Your task to perform on an android device: Open the stopwatch Image 0: 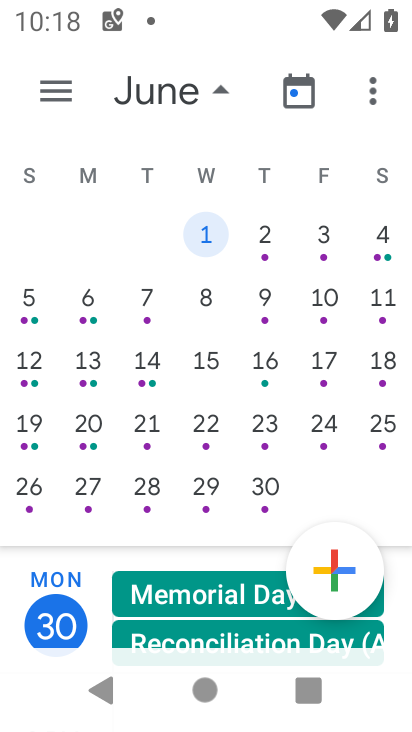
Step 0: press home button
Your task to perform on an android device: Open the stopwatch Image 1: 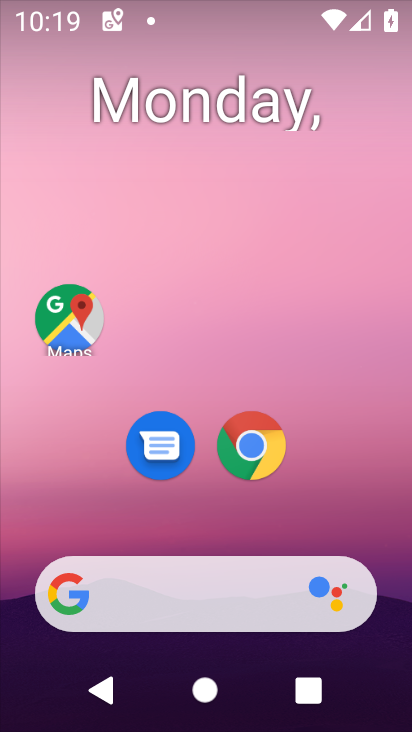
Step 1: drag from (277, 536) to (365, 5)
Your task to perform on an android device: Open the stopwatch Image 2: 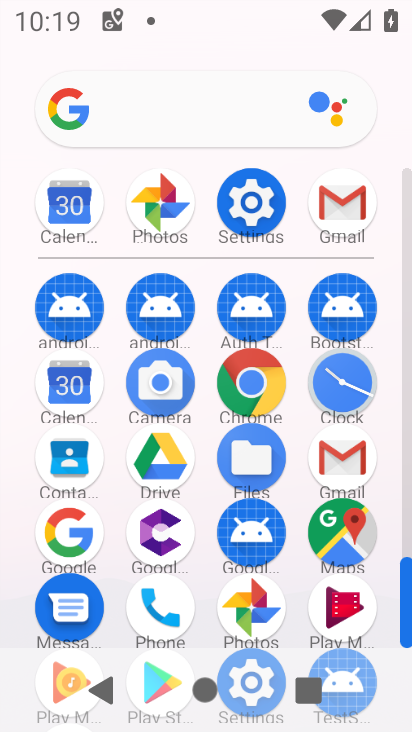
Step 2: click (252, 205)
Your task to perform on an android device: Open the stopwatch Image 3: 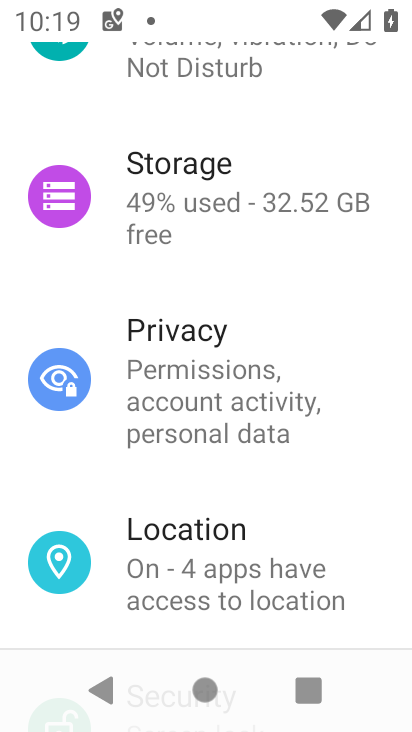
Step 3: press home button
Your task to perform on an android device: Open the stopwatch Image 4: 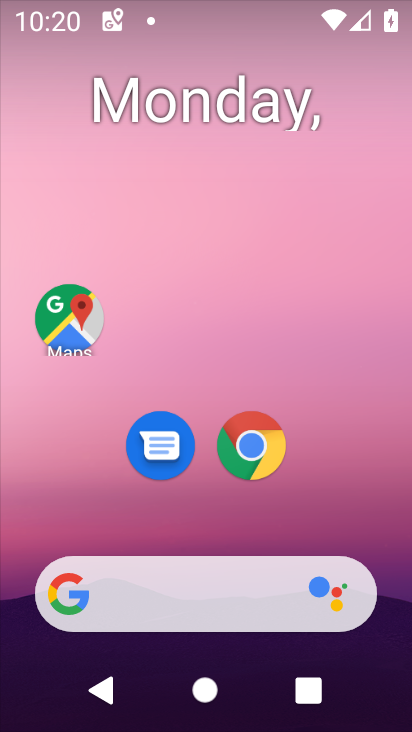
Step 4: drag from (254, 611) to (267, 442)
Your task to perform on an android device: Open the stopwatch Image 5: 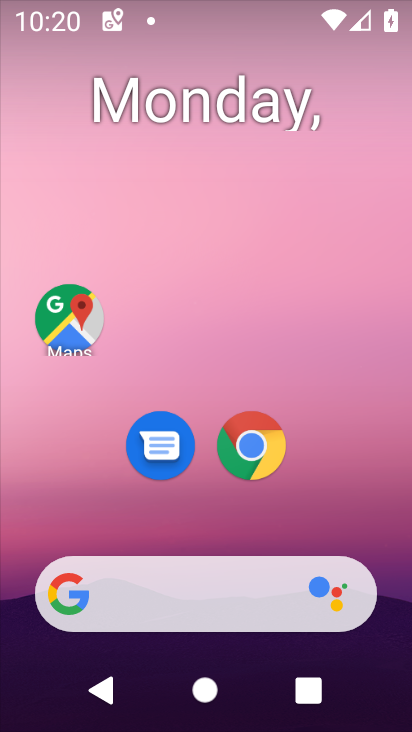
Step 5: drag from (244, 674) to (238, 3)
Your task to perform on an android device: Open the stopwatch Image 6: 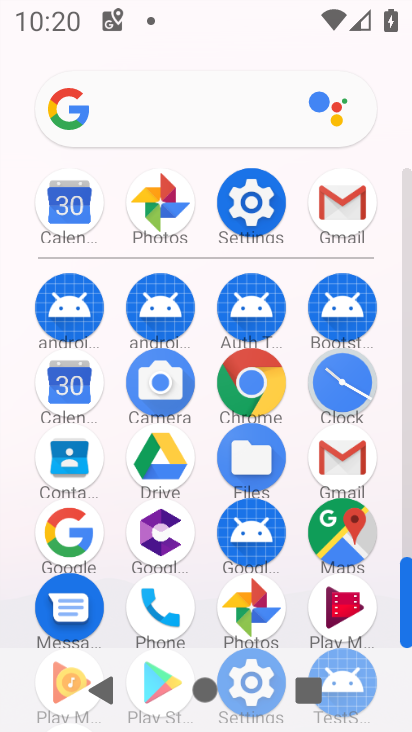
Step 6: click (353, 399)
Your task to perform on an android device: Open the stopwatch Image 7: 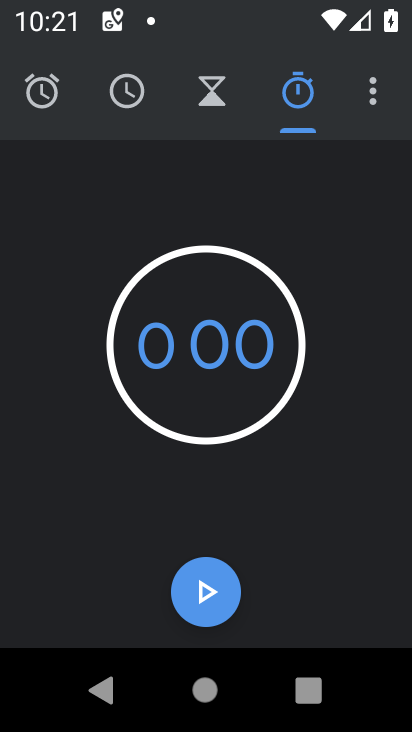
Step 7: task complete